Your task to perform on an android device: turn off location history Image 0: 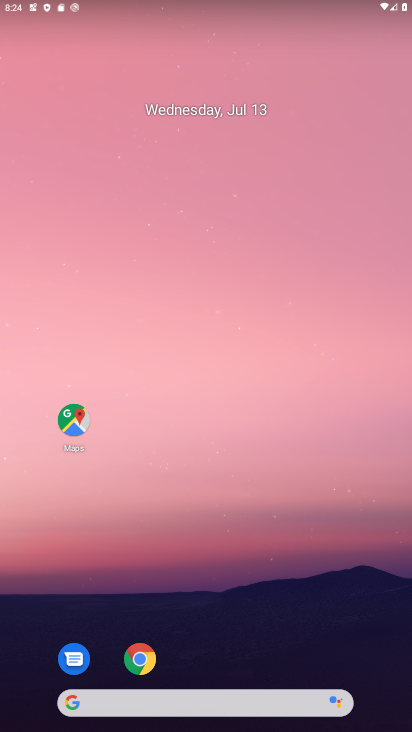
Step 0: drag from (217, 665) to (219, 205)
Your task to perform on an android device: turn off location history Image 1: 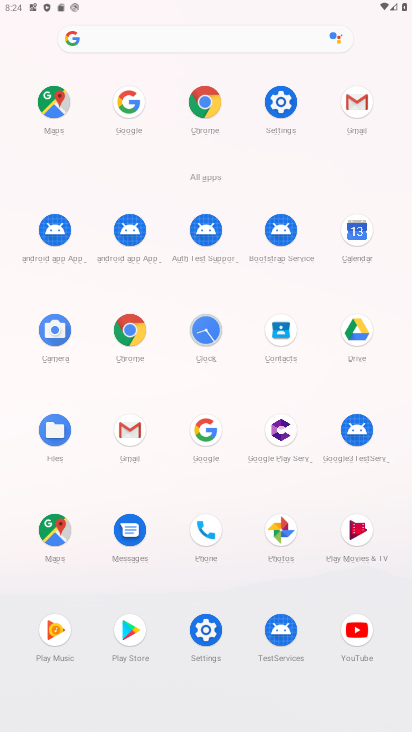
Step 1: click (289, 103)
Your task to perform on an android device: turn off location history Image 2: 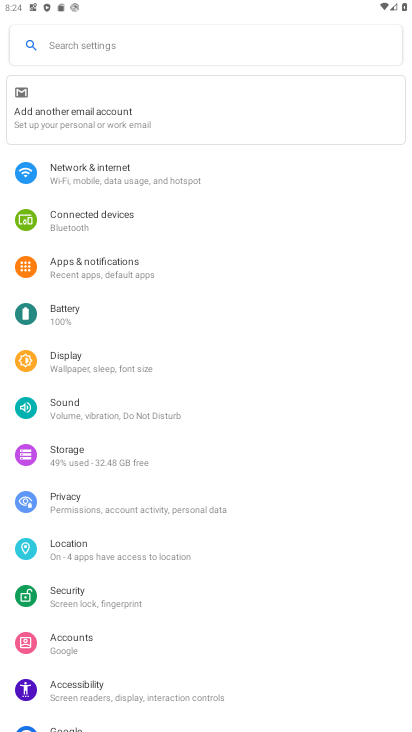
Step 2: click (97, 536)
Your task to perform on an android device: turn off location history Image 3: 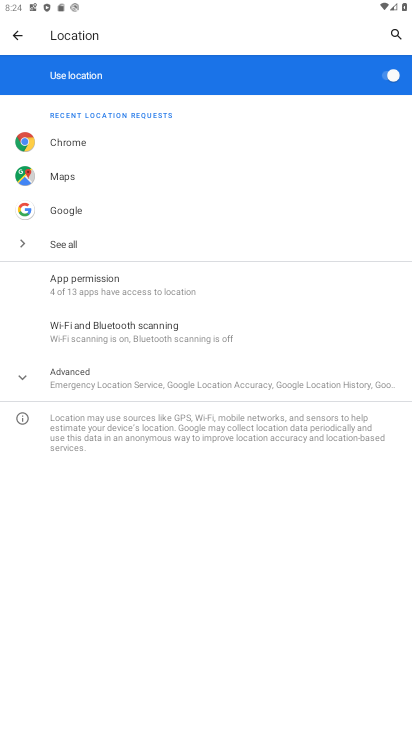
Step 3: click (112, 372)
Your task to perform on an android device: turn off location history Image 4: 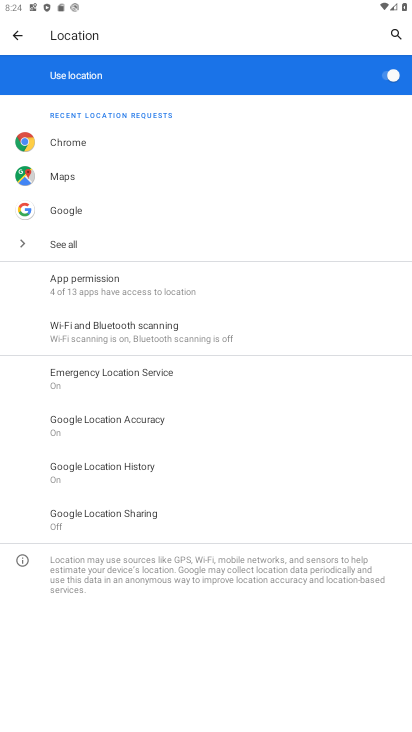
Step 4: click (148, 469)
Your task to perform on an android device: turn off location history Image 5: 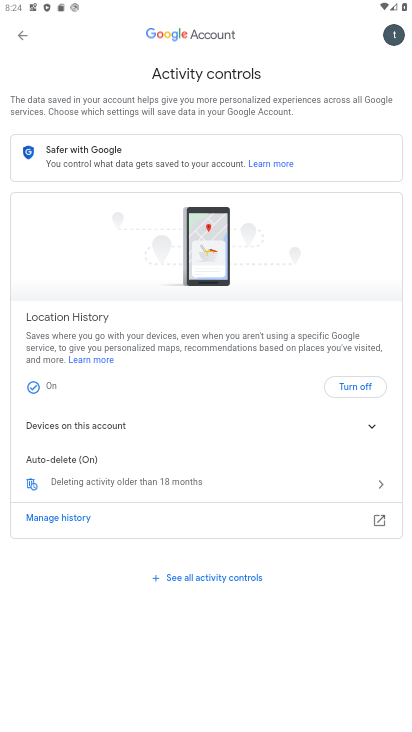
Step 5: click (353, 386)
Your task to perform on an android device: turn off location history Image 6: 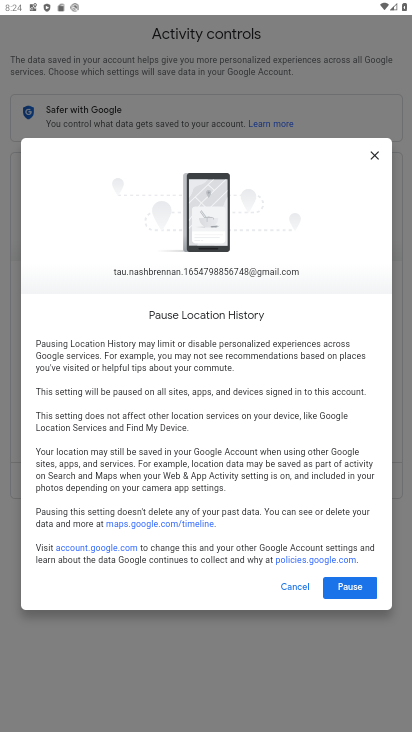
Step 6: click (360, 617)
Your task to perform on an android device: turn off location history Image 7: 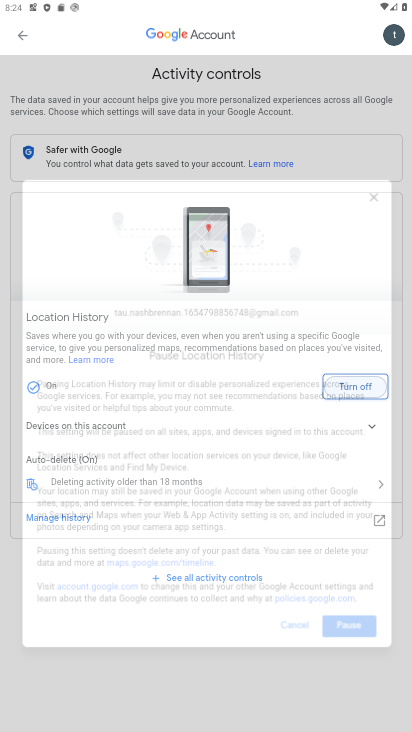
Step 7: click (343, 589)
Your task to perform on an android device: turn off location history Image 8: 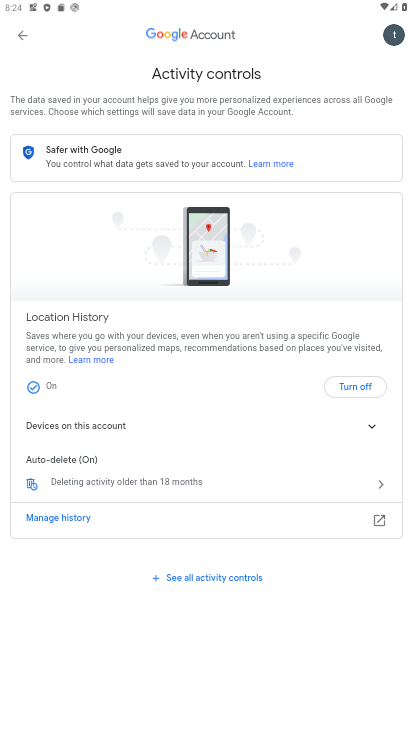
Step 8: click (358, 379)
Your task to perform on an android device: turn off location history Image 9: 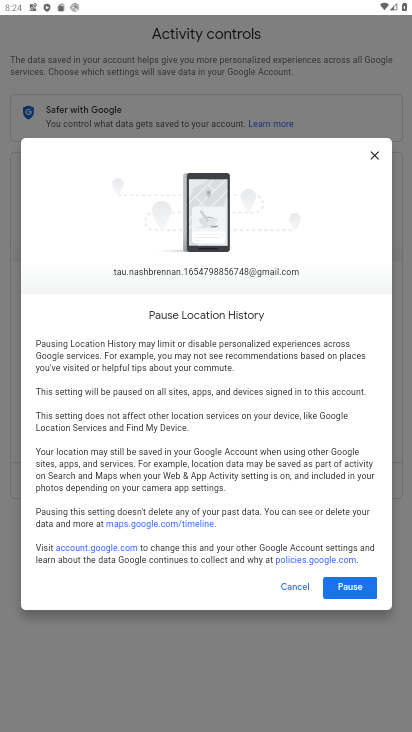
Step 9: click (354, 586)
Your task to perform on an android device: turn off location history Image 10: 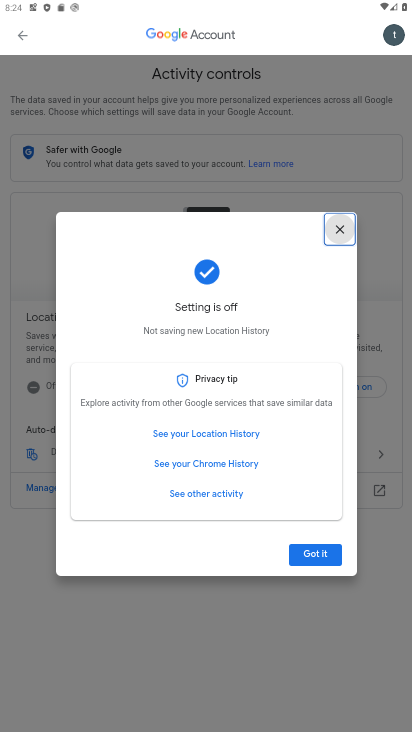
Step 10: task complete